Your task to perform on an android device: How big is the sun? Image 0: 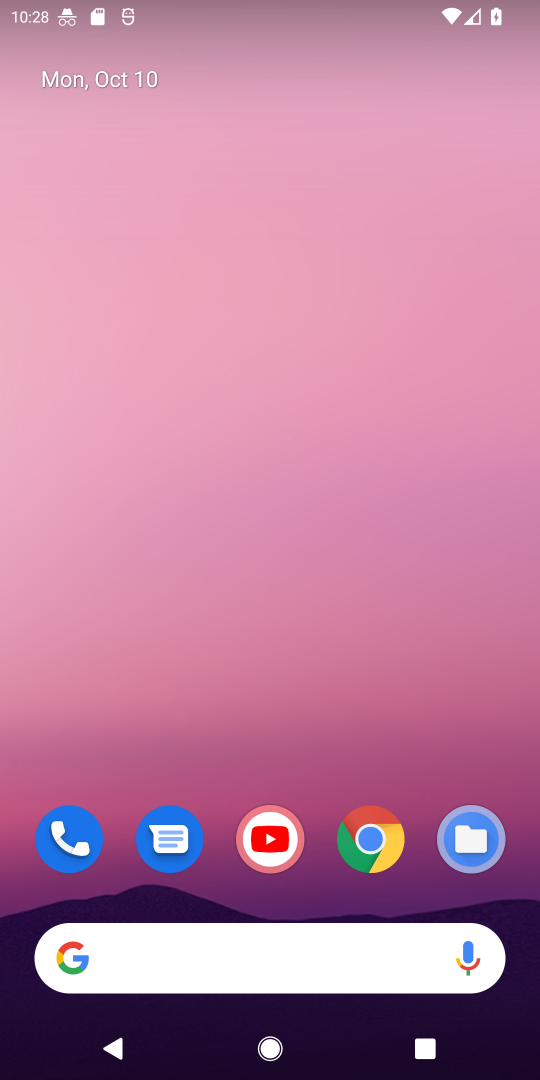
Step 0: drag from (322, 787) to (367, 185)
Your task to perform on an android device: How big is the sun? Image 1: 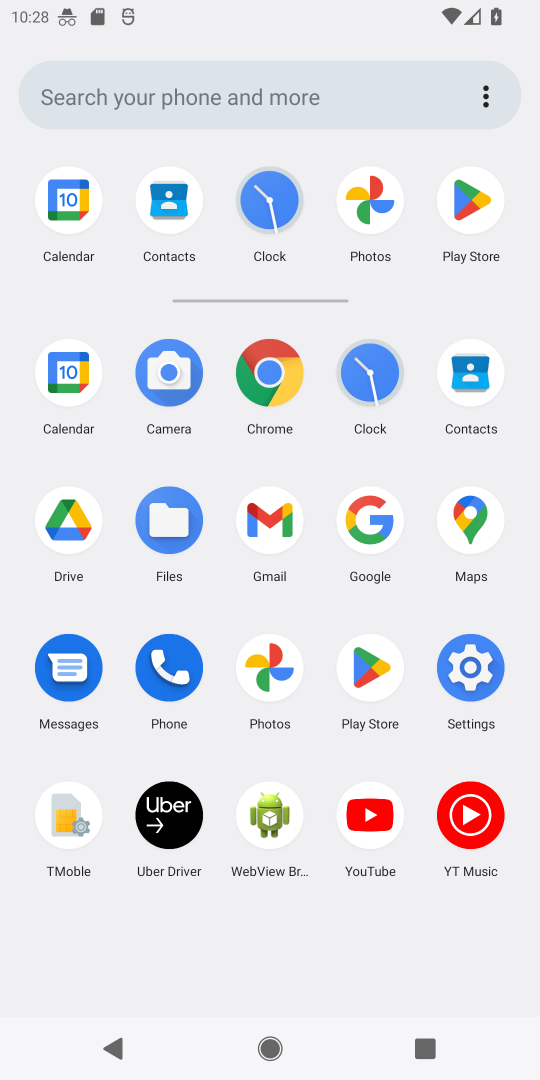
Step 1: click (276, 373)
Your task to perform on an android device: How big is the sun? Image 2: 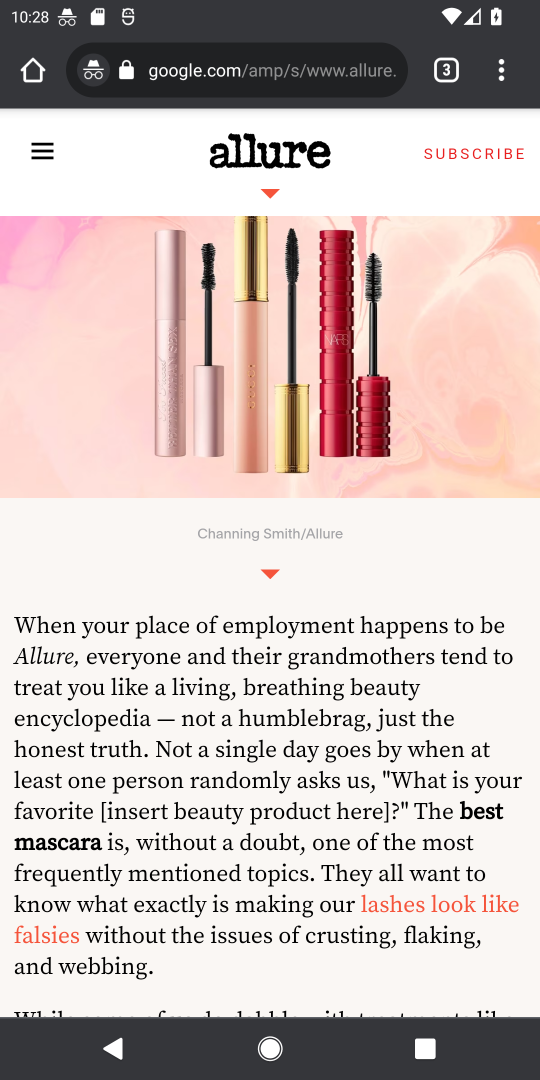
Step 2: click (280, 76)
Your task to perform on an android device: How big is the sun? Image 3: 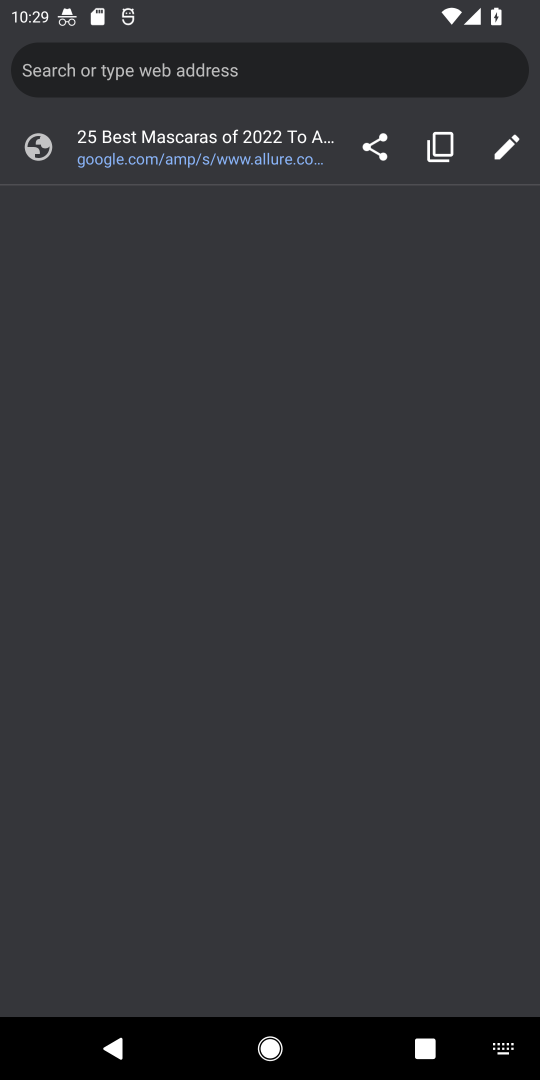
Step 3: type "How big is the sun?"
Your task to perform on an android device: How big is the sun? Image 4: 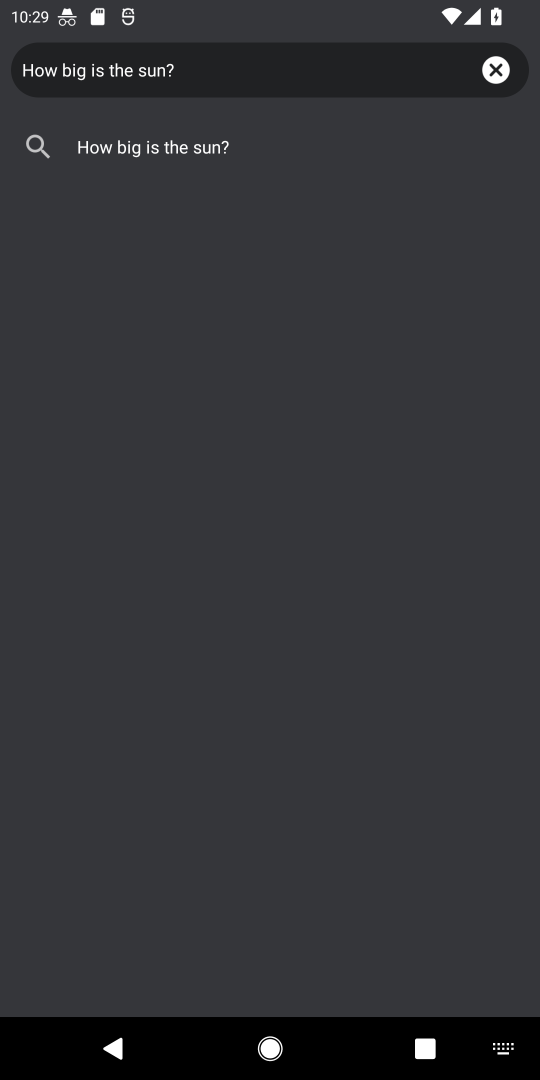
Step 4: press enter
Your task to perform on an android device: How big is the sun? Image 5: 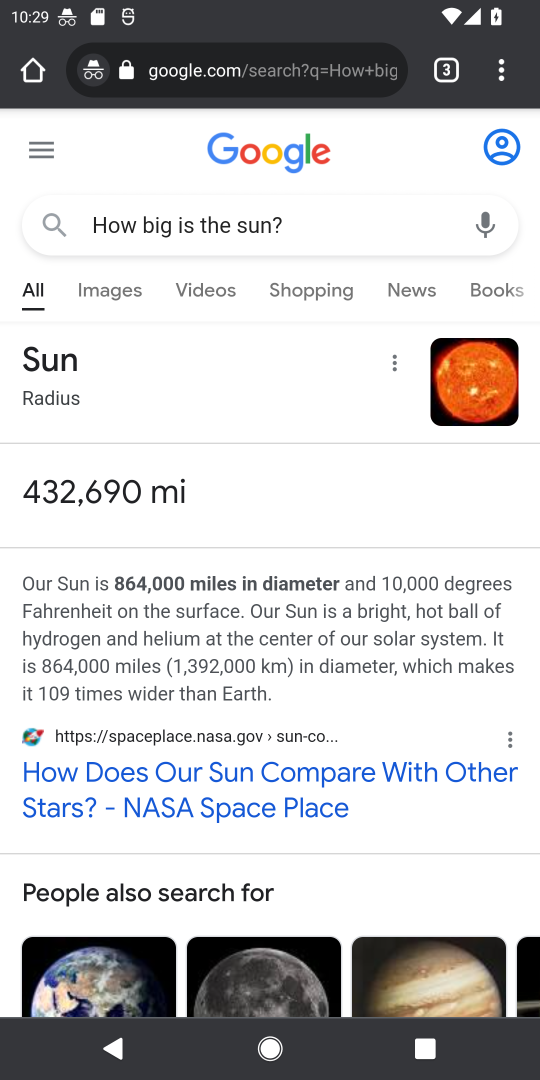
Step 5: task complete